Your task to perform on an android device: open a bookmark in the chrome app Image 0: 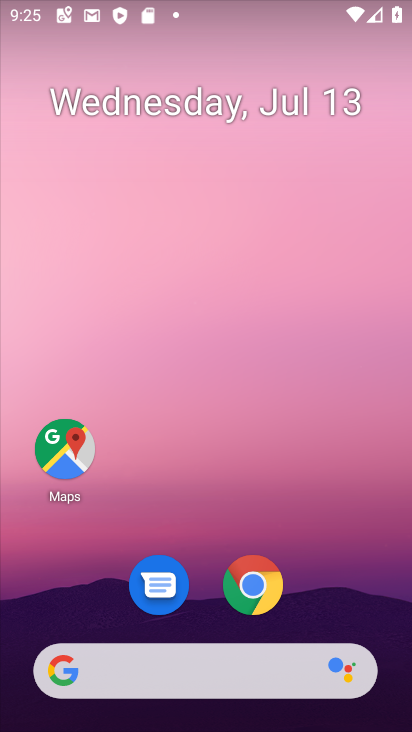
Step 0: click (256, 581)
Your task to perform on an android device: open a bookmark in the chrome app Image 1: 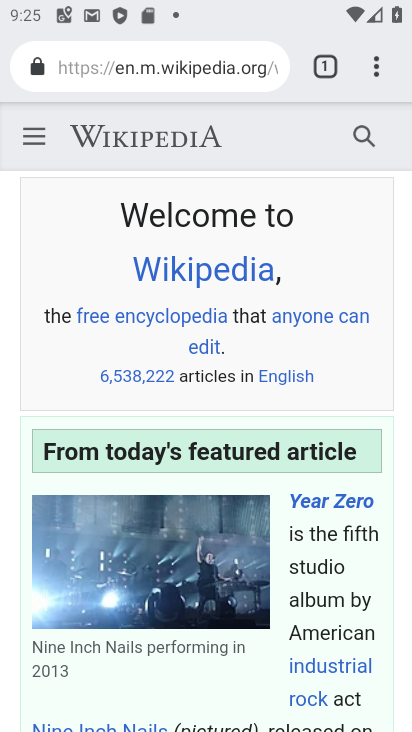
Step 1: click (375, 72)
Your task to perform on an android device: open a bookmark in the chrome app Image 2: 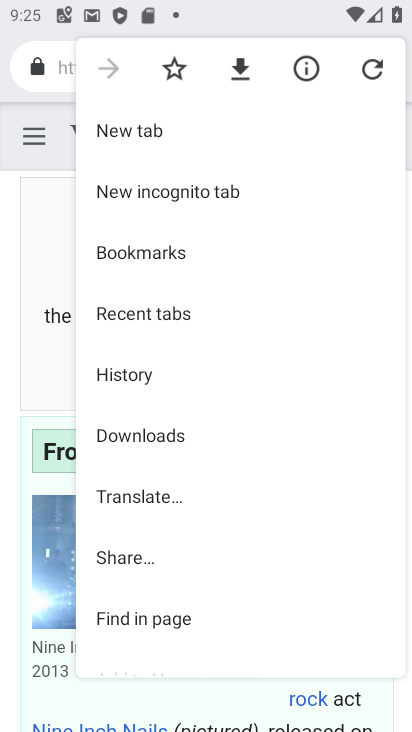
Step 2: click (275, 128)
Your task to perform on an android device: open a bookmark in the chrome app Image 3: 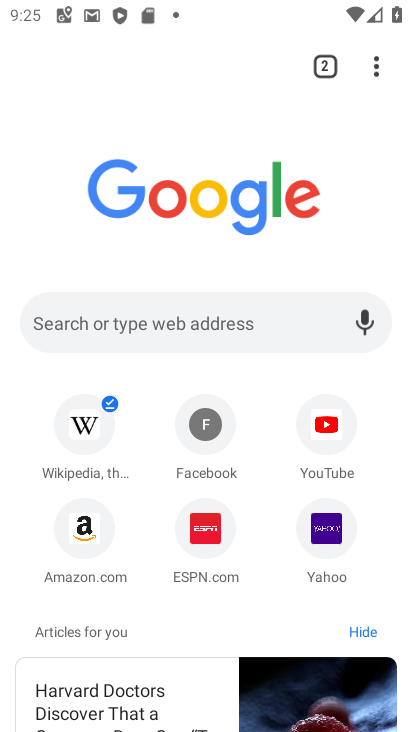
Step 3: click (373, 68)
Your task to perform on an android device: open a bookmark in the chrome app Image 4: 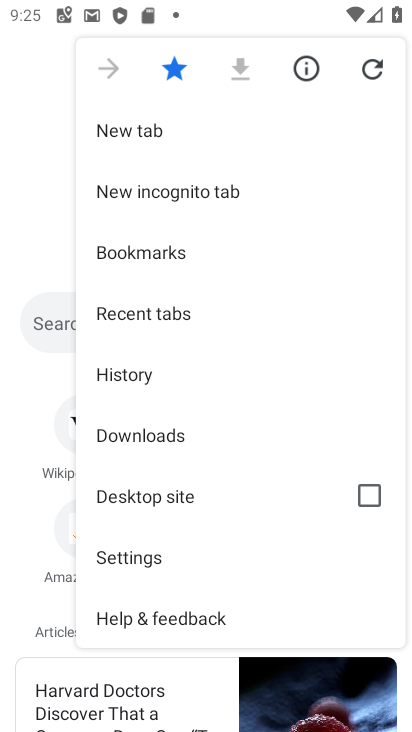
Step 4: click (170, 253)
Your task to perform on an android device: open a bookmark in the chrome app Image 5: 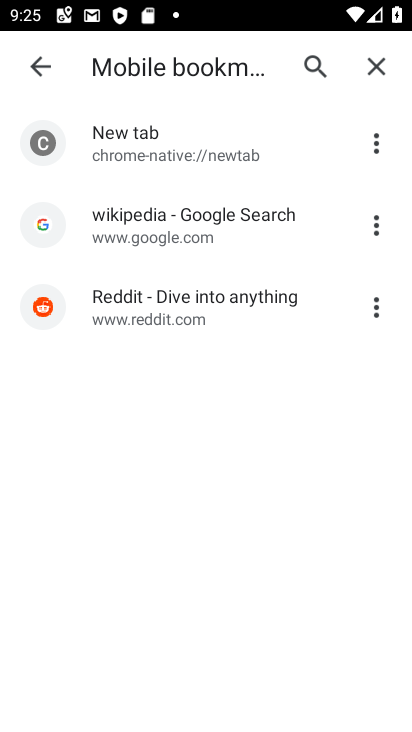
Step 5: click (170, 226)
Your task to perform on an android device: open a bookmark in the chrome app Image 6: 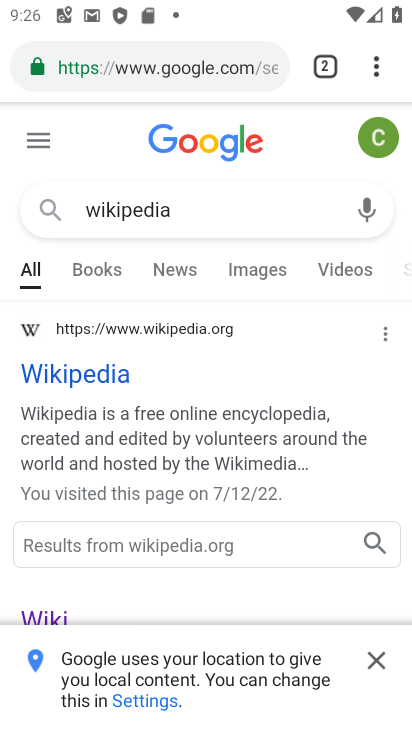
Step 6: task complete